Your task to perform on an android device: stop showing notifications on the lock screen Image 0: 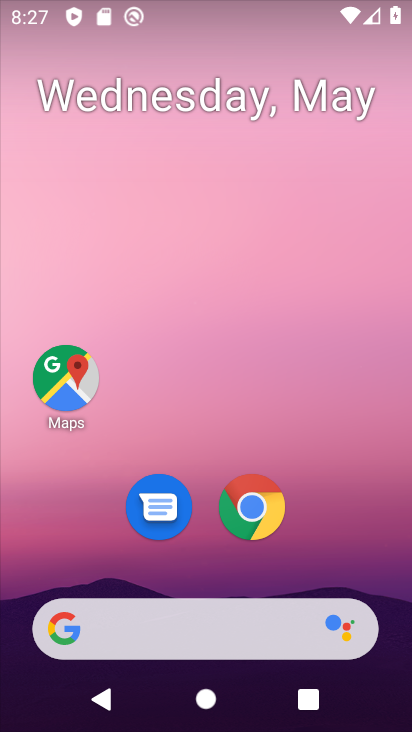
Step 0: press home button
Your task to perform on an android device: stop showing notifications on the lock screen Image 1: 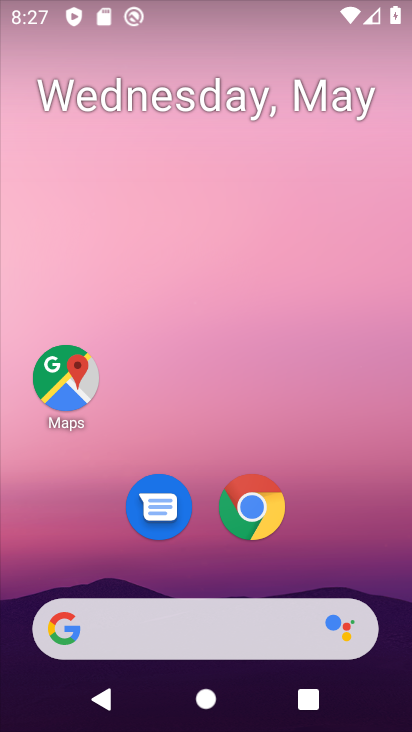
Step 1: drag from (392, 595) to (227, 29)
Your task to perform on an android device: stop showing notifications on the lock screen Image 2: 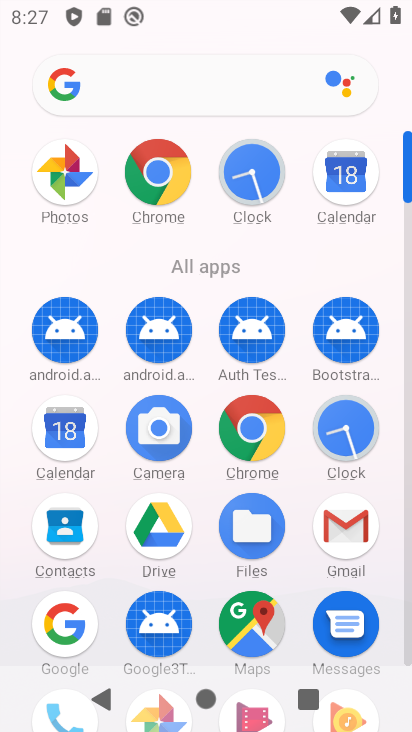
Step 2: click (253, 185)
Your task to perform on an android device: stop showing notifications on the lock screen Image 3: 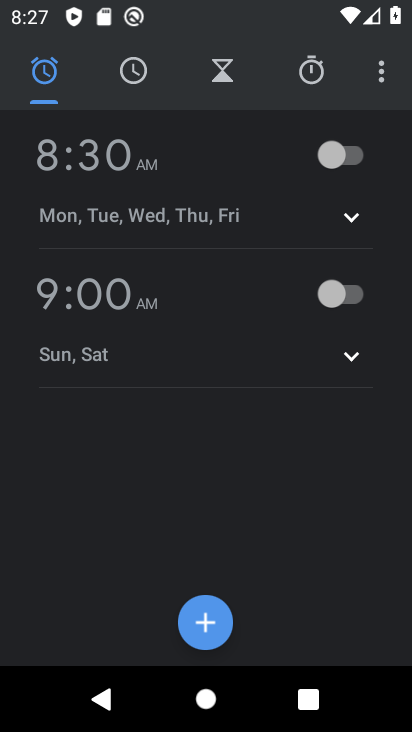
Step 3: press home button
Your task to perform on an android device: stop showing notifications on the lock screen Image 4: 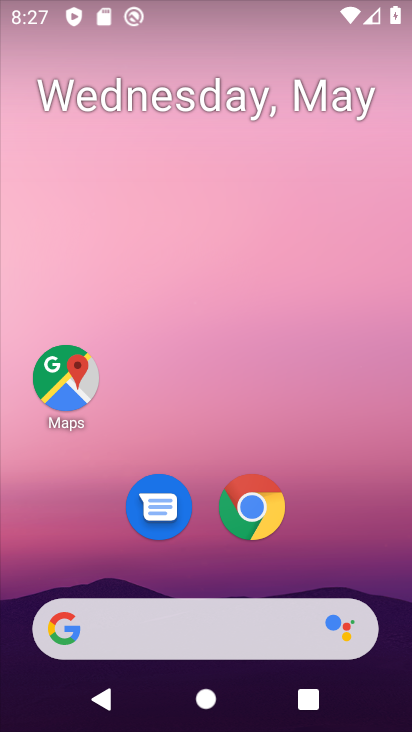
Step 4: drag from (347, 572) to (229, 124)
Your task to perform on an android device: stop showing notifications on the lock screen Image 5: 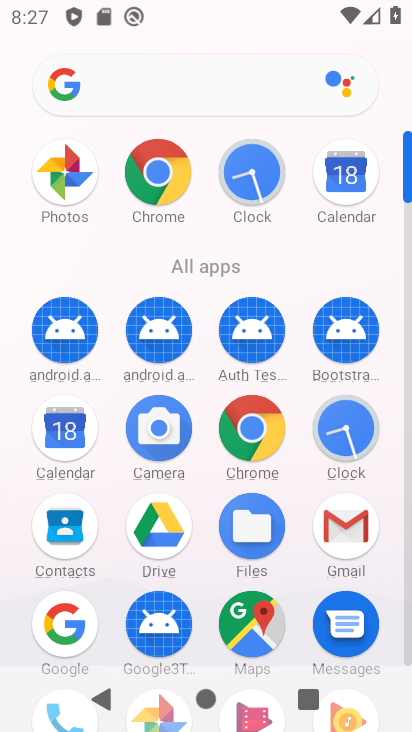
Step 5: click (404, 655)
Your task to perform on an android device: stop showing notifications on the lock screen Image 6: 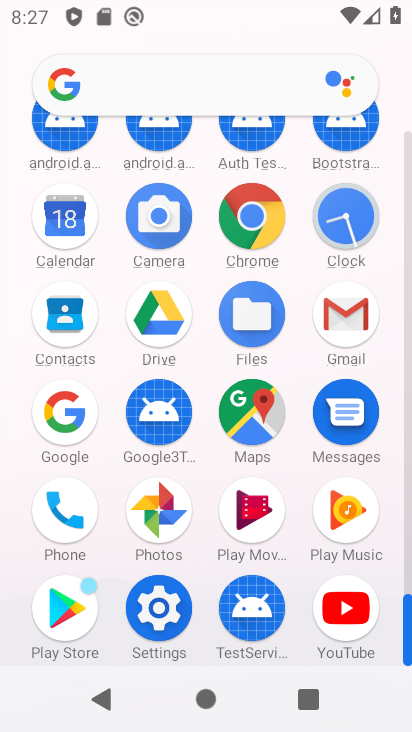
Step 6: click (156, 615)
Your task to perform on an android device: stop showing notifications on the lock screen Image 7: 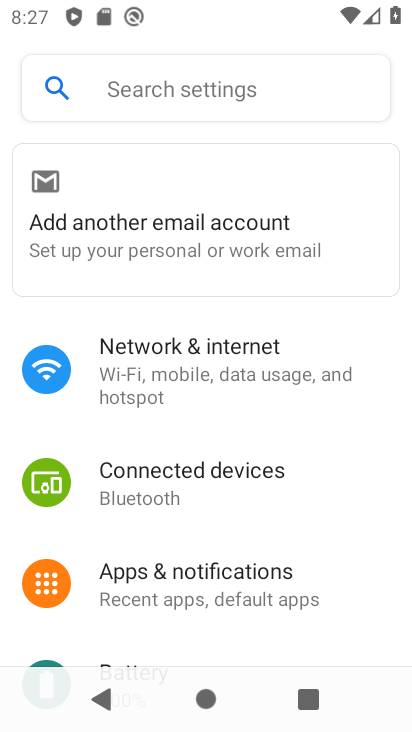
Step 7: drag from (195, 608) to (167, 356)
Your task to perform on an android device: stop showing notifications on the lock screen Image 8: 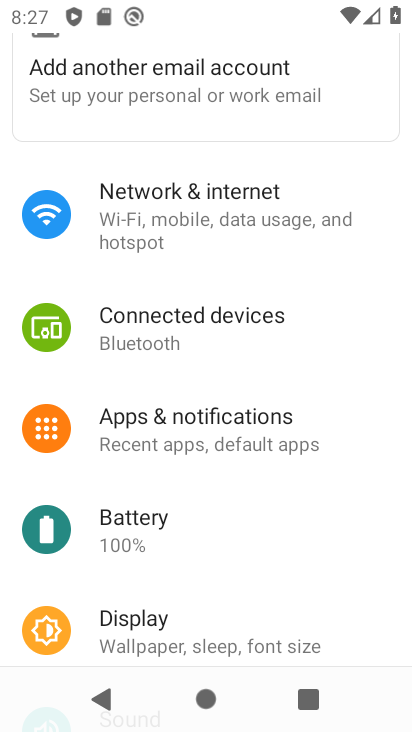
Step 8: click (167, 425)
Your task to perform on an android device: stop showing notifications on the lock screen Image 9: 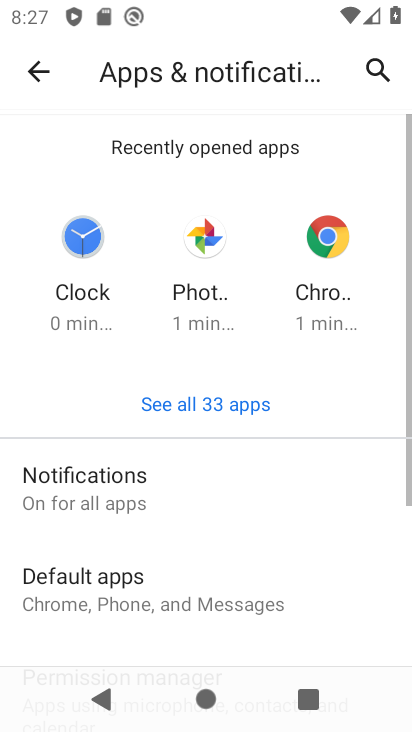
Step 9: click (145, 466)
Your task to perform on an android device: stop showing notifications on the lock screen Image 10: 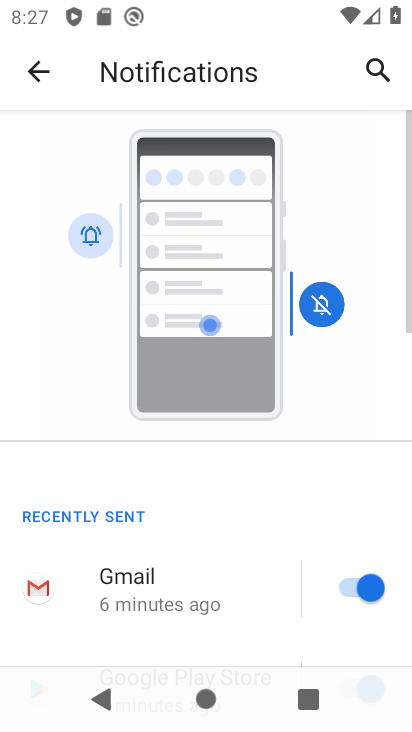
Step 10: drag from (145, 510) to (100, 87)
Your task to perform on an android device: stop showing notifications on the lock screen Image 11: 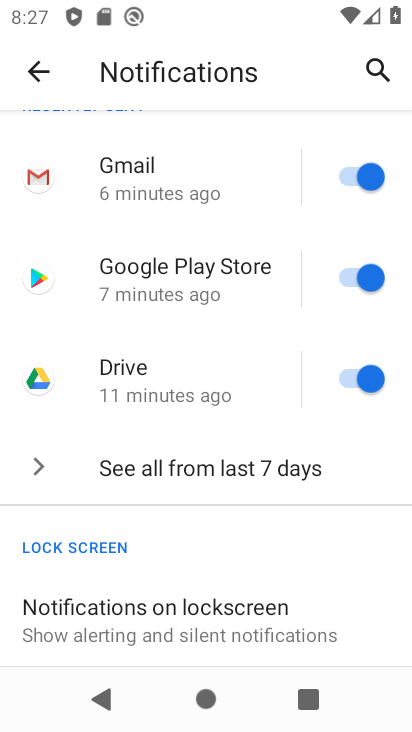
Step 11: drag from (254, 606) to (231, 484)
Your task to perform on an android device: stop showing notifications on the lock screen Image 12: 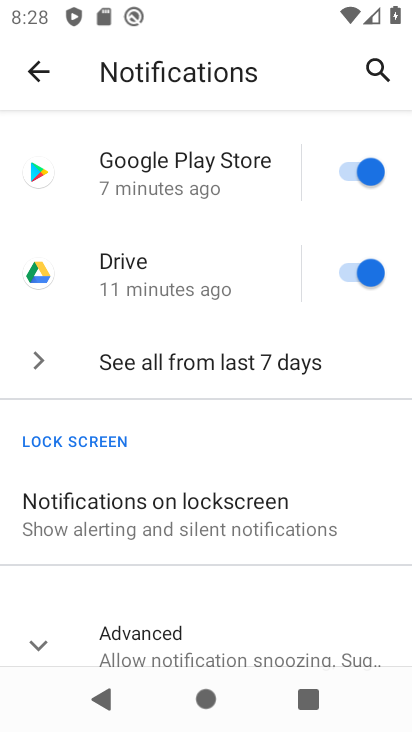
Step 12: click (224, 523)
Your task to perform on an android device: stop showing notifications on the lock screen Image 13: 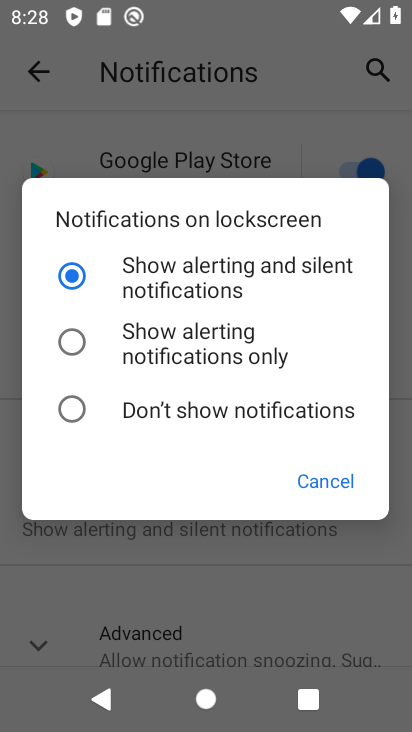
Step 13: click (68, 419)
Your task to perform on an android device: stop showing notifications on the lock screen Image 14: 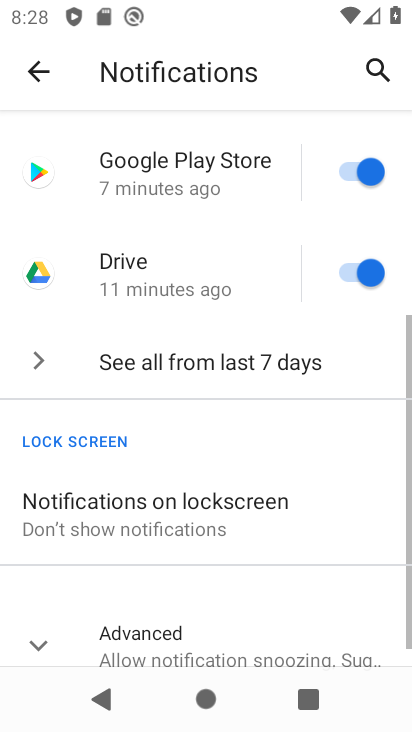
Step 14: task complete